Your task to perform on an android device: turn off location history Image 0: 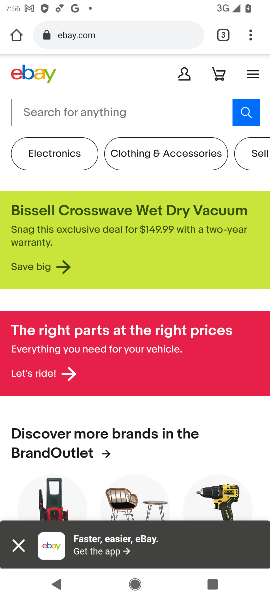
Step 0: press home button
Your task to perform on an android device: turn off location history Image 1: 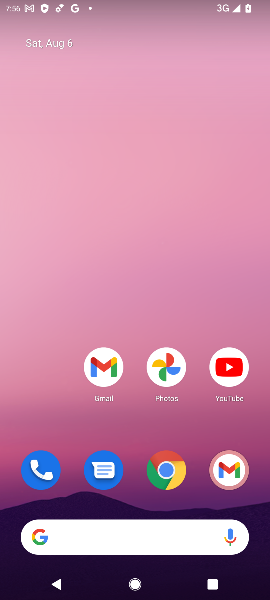
Step 1: drag from (167, 504) to (252, 26)
Your task to perform on an android device: turn off location history Image 2: 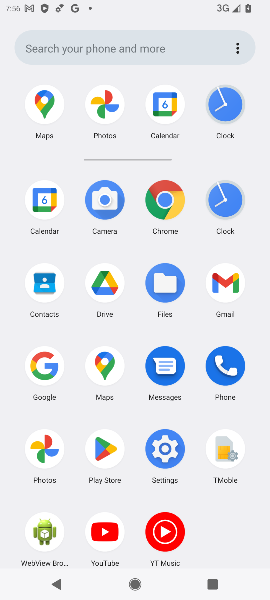
Step 2: click (171, 457)
Your task to perform on an android device: turn off location history Image 3: 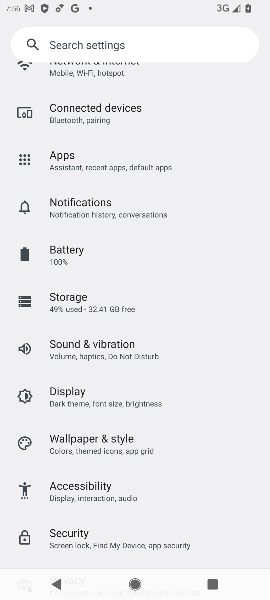
Step 3: drag from (134, 406) to (118, 203)
Your task to perform on an android device: turn off location history Image 4: 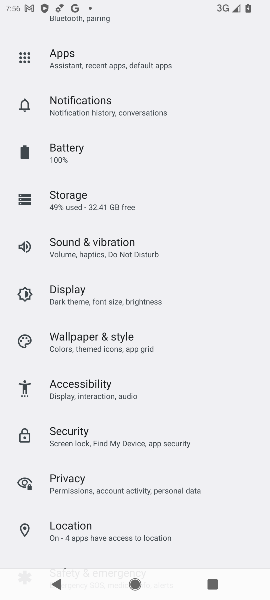
Step 4: click (95, 531)
Your task to perform on an android device: turn off location history Image 5: 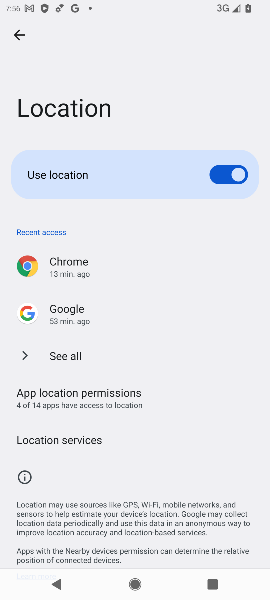
Step 5: drag from (110, 473) to (108, 310)
Your task to perform on an android device: turn off location history Image 6: 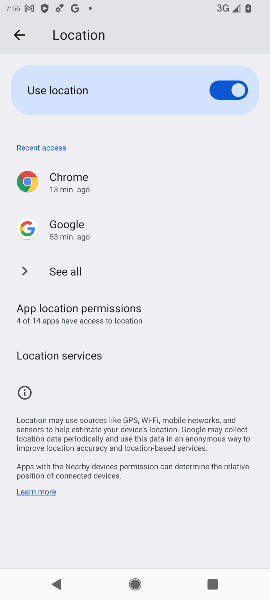
Step 6: click (63, 362)
Your task to perform on an android device: turn off location history Image 7: 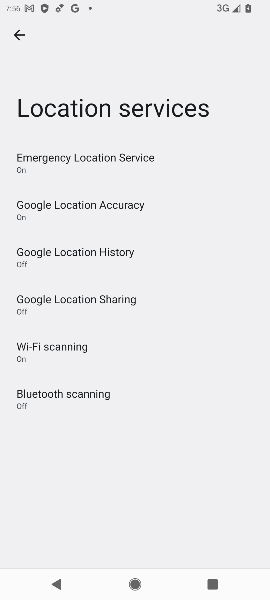
Step 7: click (95, 261)
Your task to perform on an android device: turn off location history Image 8: 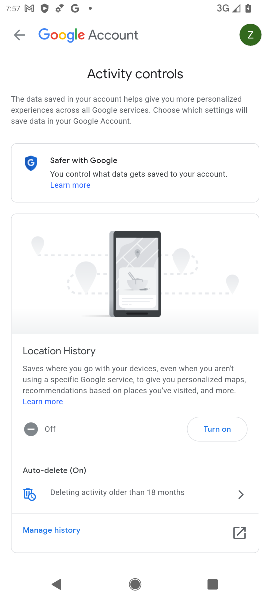
Step 8: task complete